Your task to perform on an android device: find snoozed emails in the gmail app Image 0: 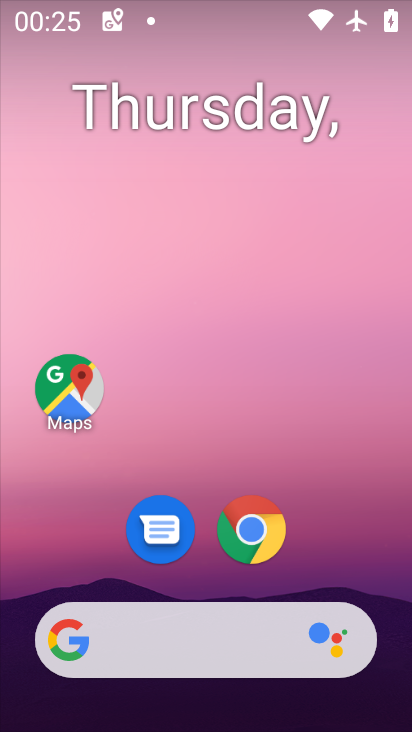
Step 0: drag from (397, 630) to (318, 94)
Your task to perform on an android device: find snoozed emails in the gmail app Image 1: 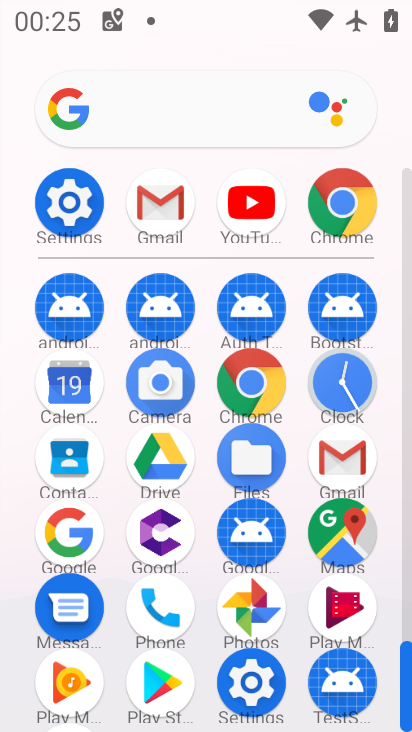
Step 1: click (404, 596)
Your task to perform on an android device: find snoozed emails in the gmail app Image 2: 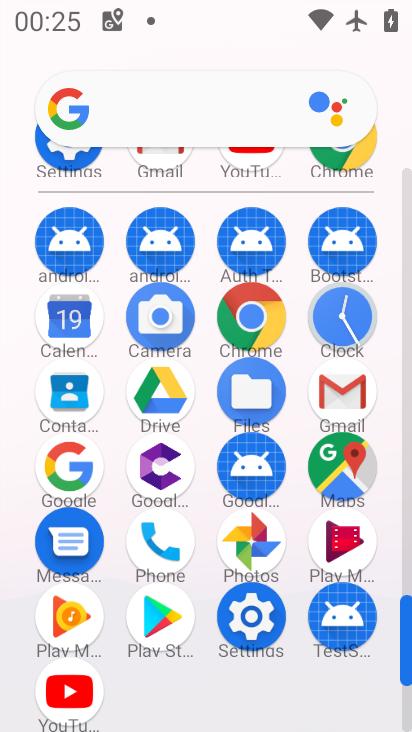
Step 2: click (343, 386)
Your task to perform on an android device: find snoozed emails in the gmail app Image 3: 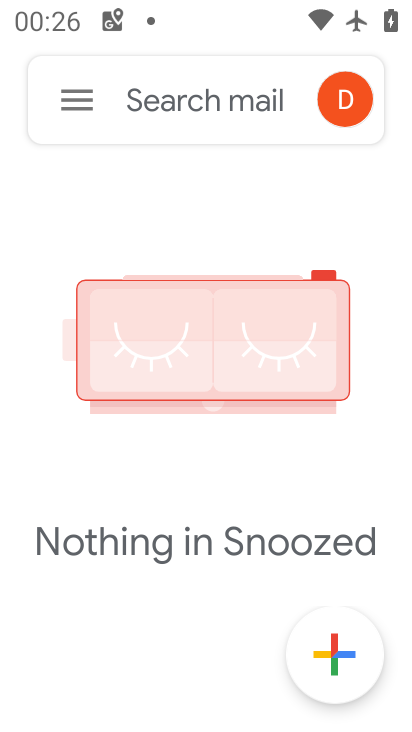
Step 3: click (73, 89)
Your task to perform on an android device: find snoozed emails in the gmail app Image 4: 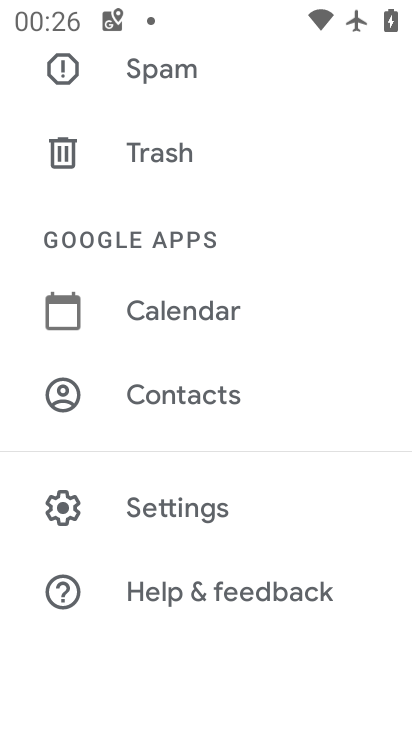
Step 4: drag from (276, 133) to (278, 489)
Your task to perform on an android device: find snoozed emails in the gmail app Image 5: 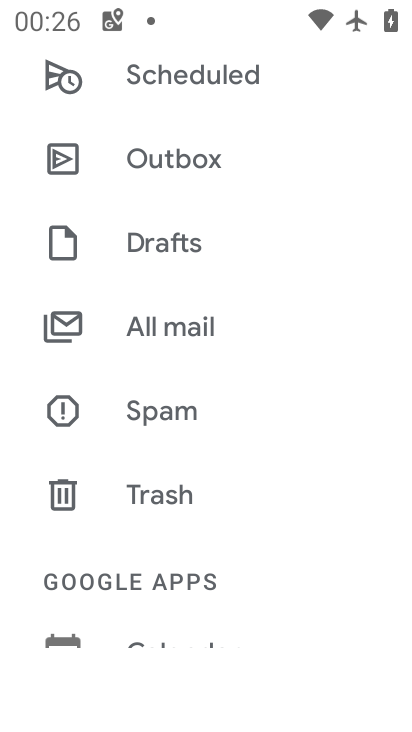
Step 5: drag from (287, 150) to (246, 472)
Your task to perform on an android device: find snoozed emails in the gmail app Image 6: 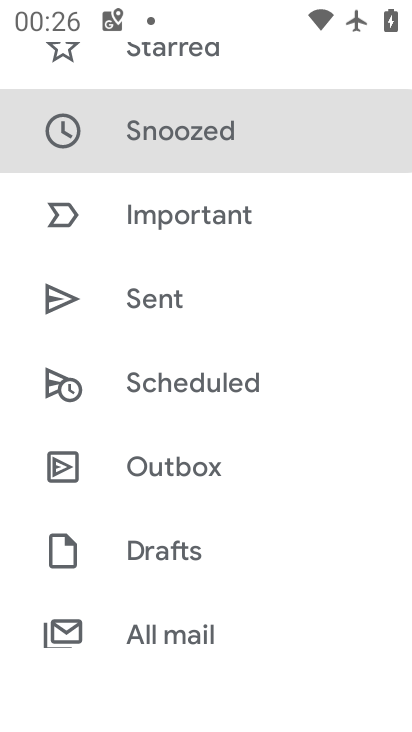
Step 6: click (164, 123)
Your task to perform on an android device: find snoozed emails in the gmail app Image 7: 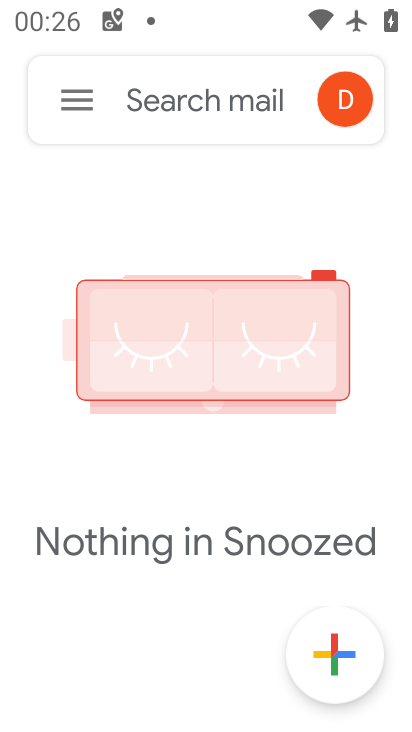
Step 7: task complete